Your task to perform on an android device: allow notifications from all sites in the chrome app Image 0: 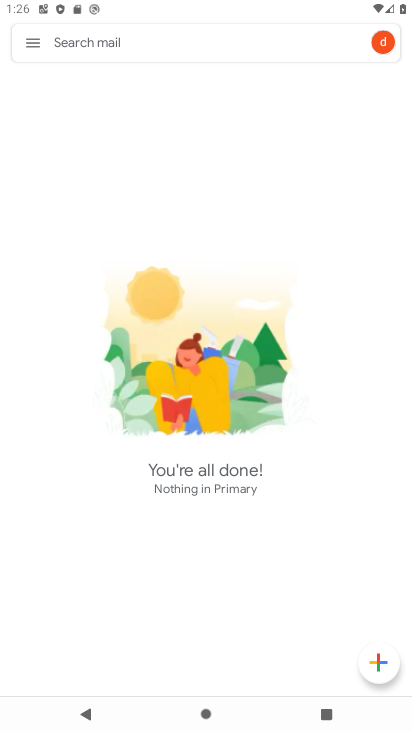
Step 0: press home button
Your task to perform on an android device: allow notifications from all sites in the chrome app Image 1: 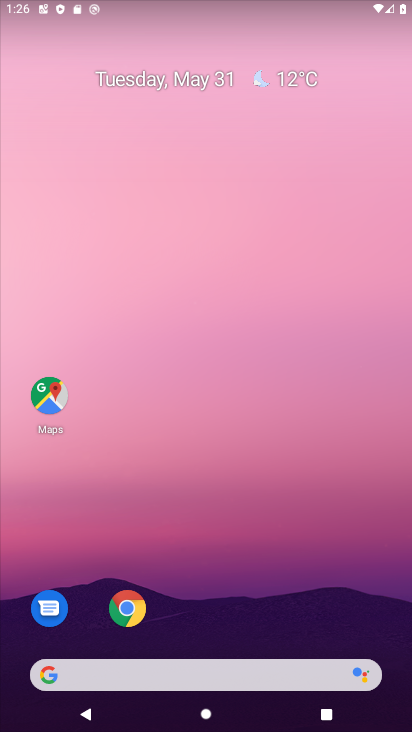
Step 1: drag from (348, 599) to (327, 126)
Your task to perform on an android device: allow notifications from all sites in the chrome app Image 2: 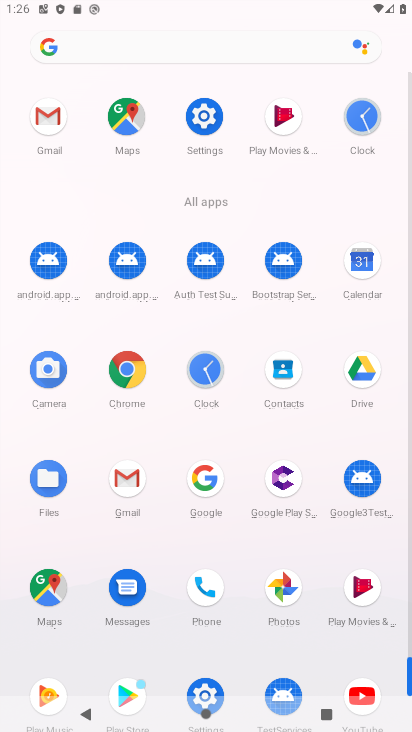
Step 2: click (127, 374)
Your task to perform on an android device: allow notifications from all sites in the chrome app Image 3: 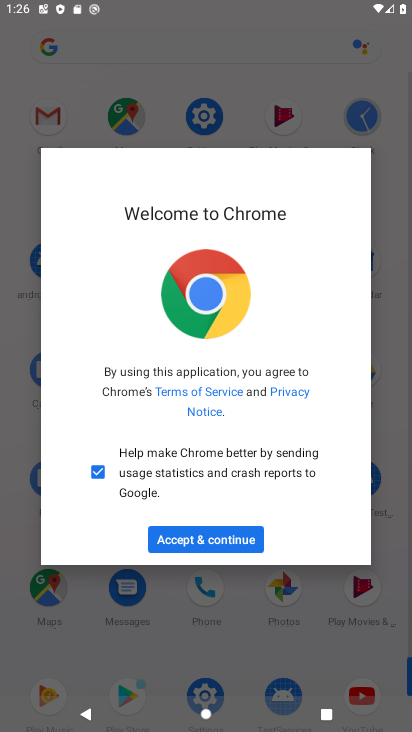
Step 3: click (229, 544)
Your task to perform on an android device: allow notifications from all sites in the chrome app Image 4: 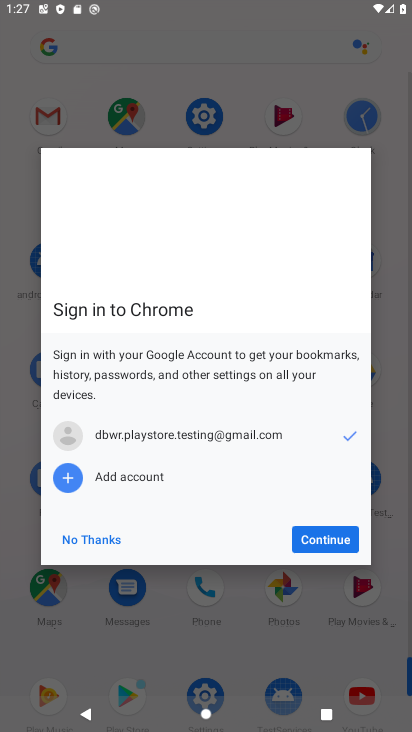
Step 4: click (331, 540)
Your task to perform on an android device: allow notifications from all sites in the chrome app Image 5: 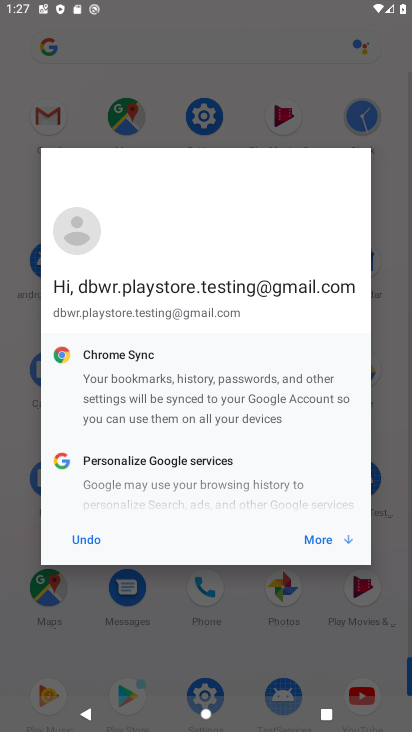
Step 5: click (310, 537)
Your task to perform on an android device: allow notifications from all sites in the chrome app Image 6: 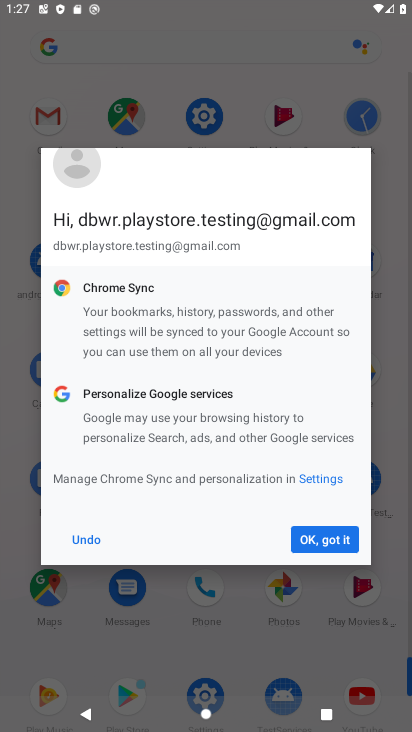
Step 6: click (340, 537)
Your task to perform on an android device: allow notifications from all sites in the chrome app Image 7: 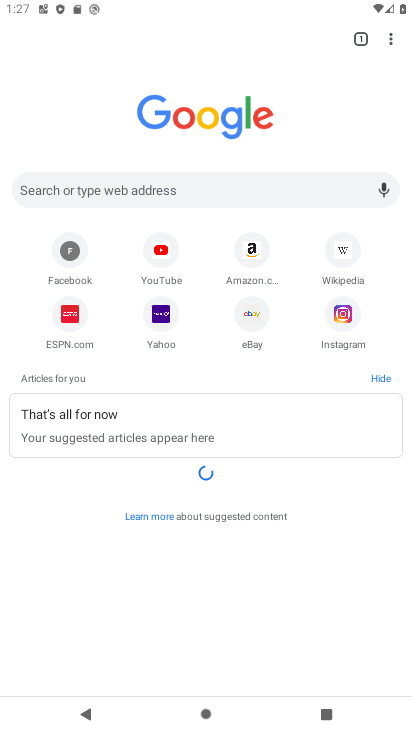
Step 7: drag from (398, 50) to (291, 325)
Your task to perform on an android device: allow notifications from all sites in the chrome app Image 8: 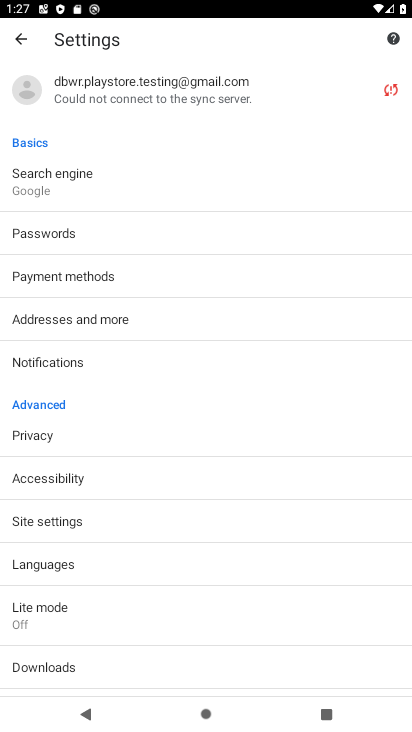
Step 8: click (131, 511)
Your task to perform on an android device: allow notifications from all sites in the chrome app Image 9: 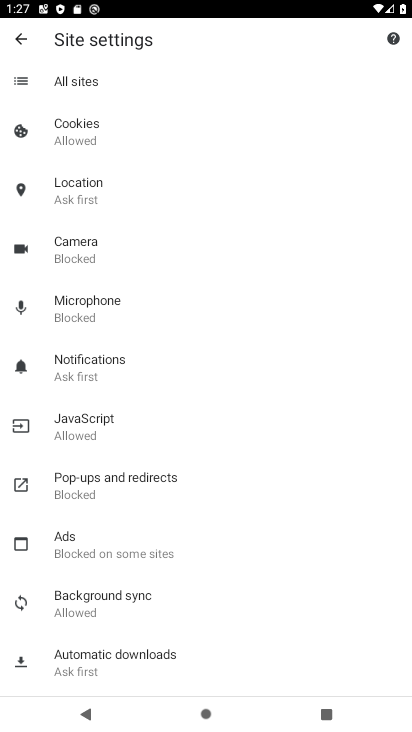
Step 9: click (265, 81)
Your task to perform on an android device: allow notifications from all sites in the chrome app Image 10: 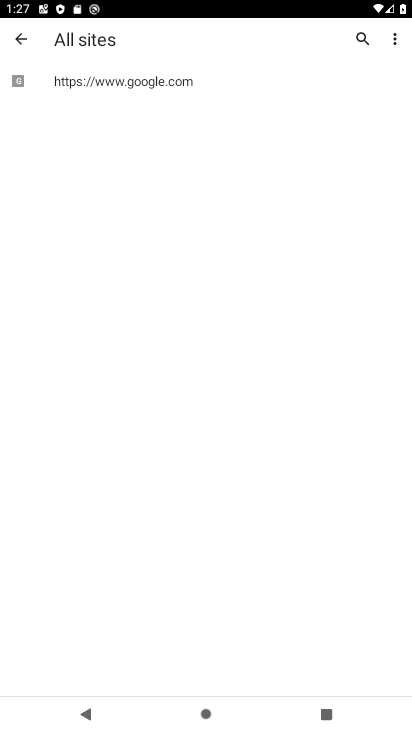
Step 10: task complete